Your task to perform on an android device: When is my next meeting? Image 0: 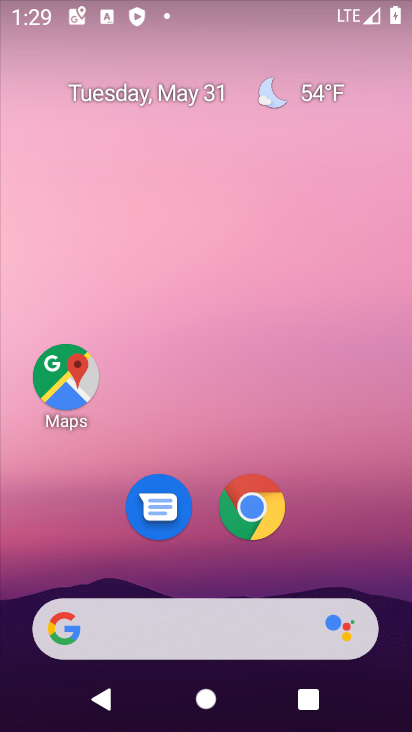
Step 0: drag from (382, 653) to (283, 60)
Your task to perform on an android device: When is my next meeting? Image 1: 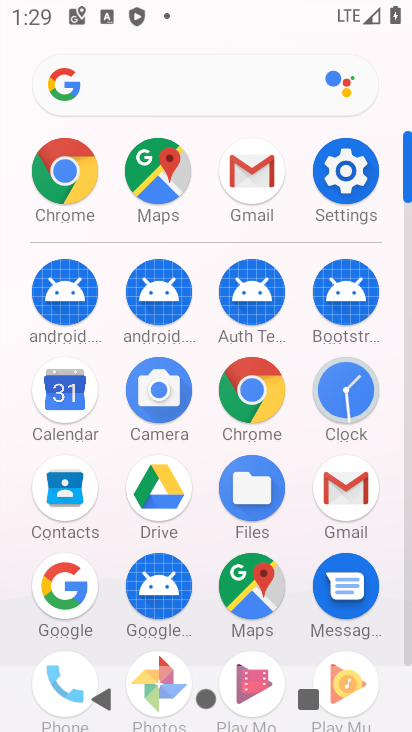
Step 1: click (62, 415)
Your task to perform on an android device: When is my next meeting? Image 2: 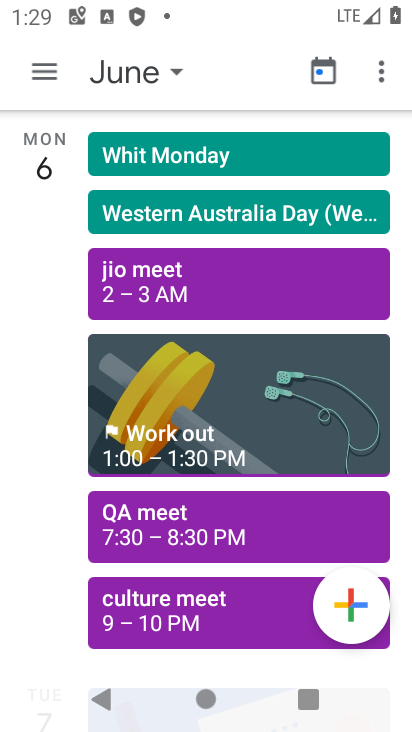
Step 2: task complete